Your task to perform on an android device: move an email to a new category in the gmail app Image 0: 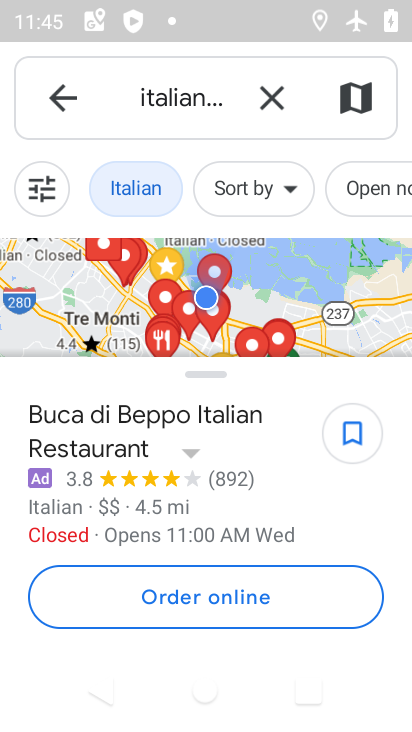
Step 0: press home button
Your task to perform on an android device: move an email to a new category in the gmail app Image 1: 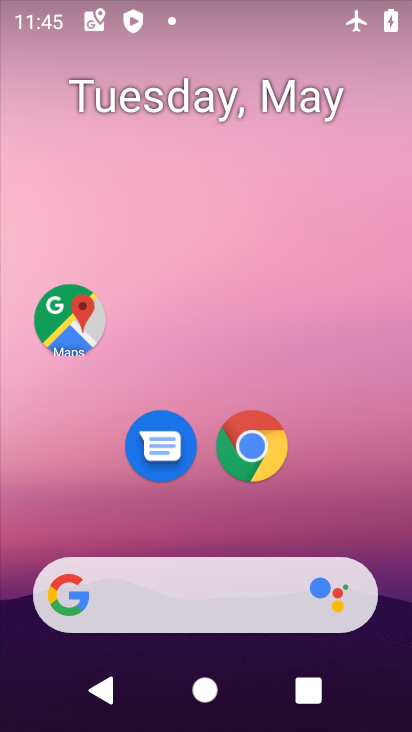
Step 1: drag from (239, 727) to (230, 141)
Your task to perform on an android device: move an email to a new category in the gmail app Image 2: 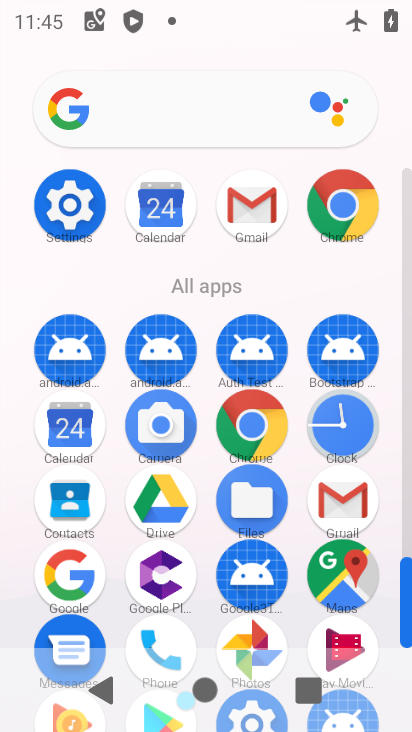
Step 2: click (336, 502)
Your task to perform on an android device: move an email to a new category in the gmail app Image 3: 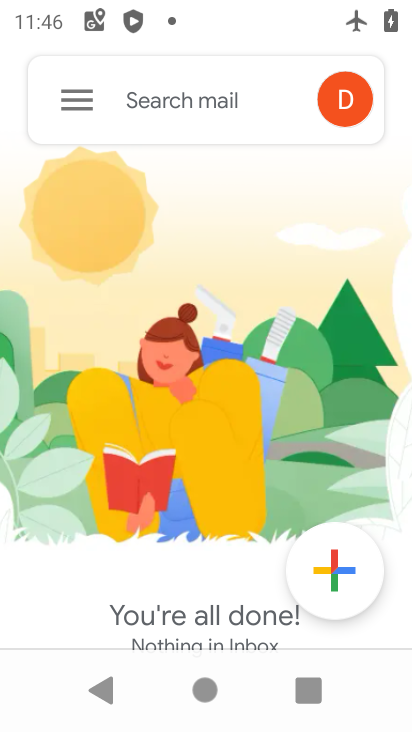
Step 3: task complete